Your task to perform on an android device: turn notification dots off Image 0: 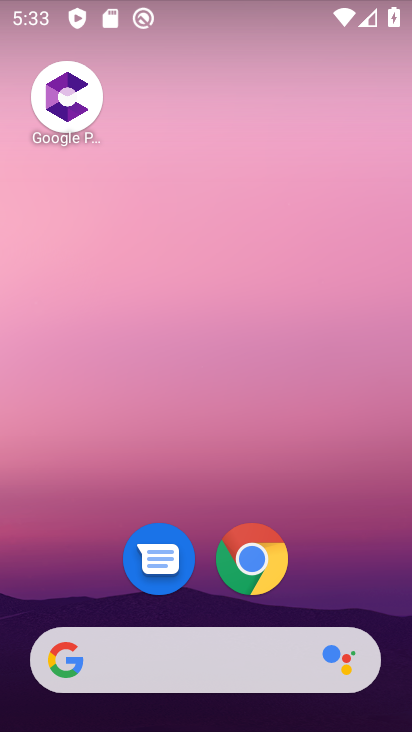
Step 0: drag from (362, 532) to (276, 26)
Your task to perform on an android device: turn notification dots off Image 1: 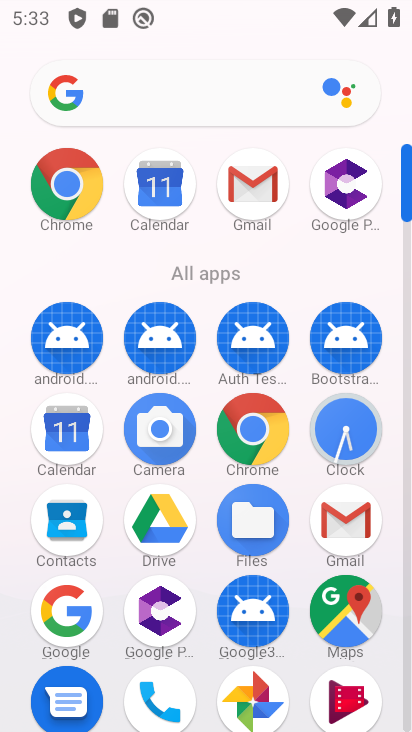
Step 1: click (404, 729)
Your task to perform on an android device: turn notification dots off Image 2: 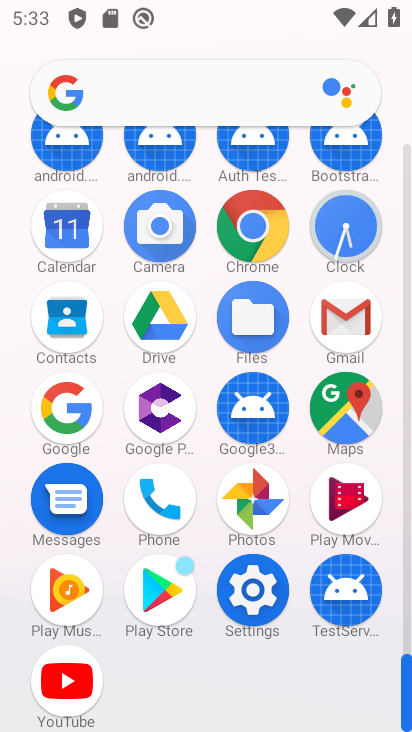
Step 2: click (245, 597)
Your task to perform on an android device: turn notification dots off Image 3: 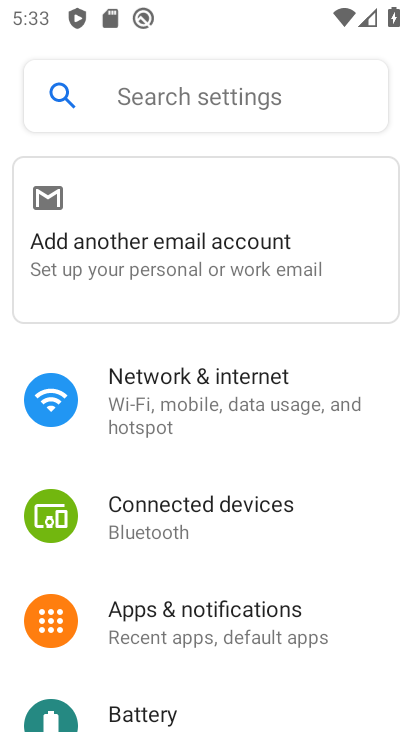
Step 3: click (279, 618)
Your task to perform on an android device: turn notification dots off Image 4: 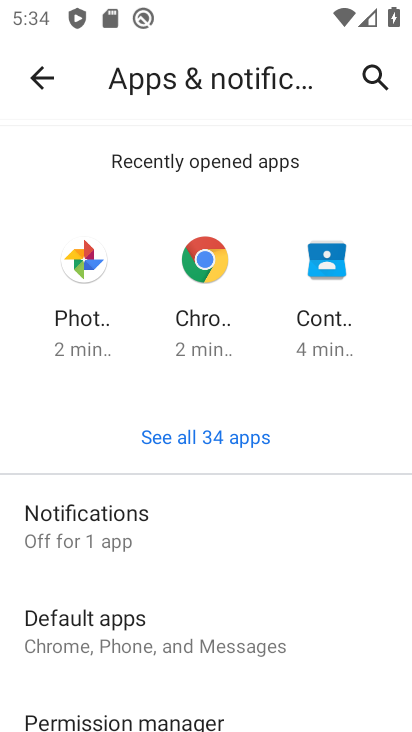
Step 4: click (148, 525)
Your task to perform on an android device: turn notification dots off Image 5: 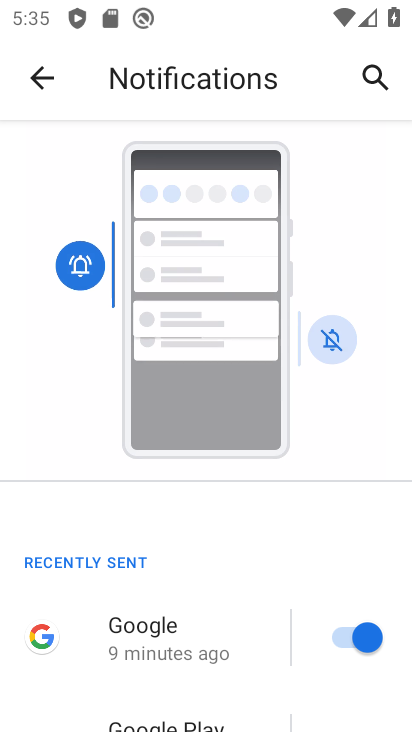
Step 5: drag from (192, 581) to (224, 291)
Your task to perform on an android device: turn notification dots off Image 6: 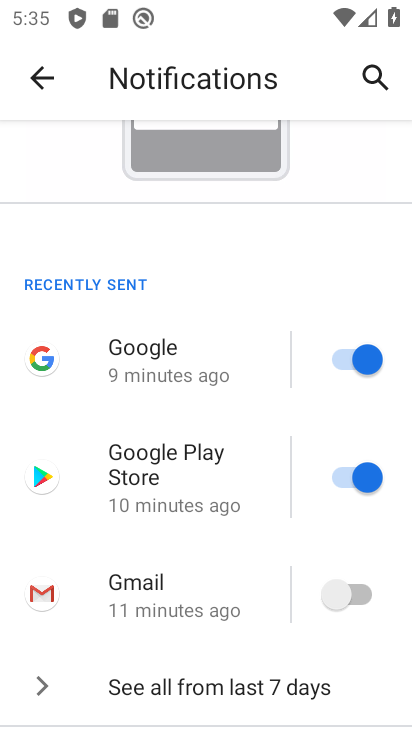
Step 6: drag from (286, 646) to (228, 351)
Your task to perform on an android device: turn notification dots off Image 7: 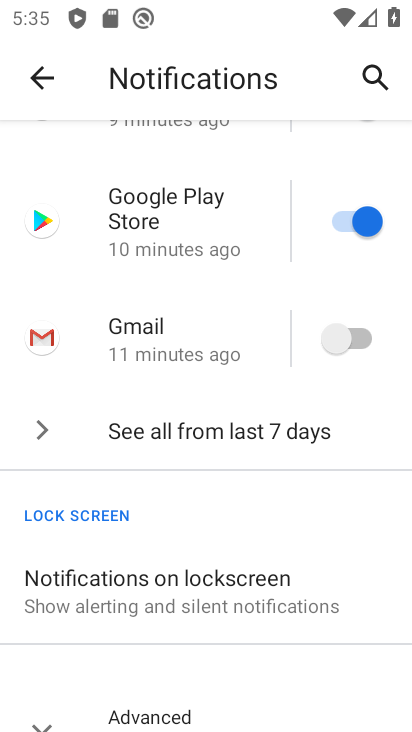
Step 7: drag from (137, 645) to (136, 386)
Your task to perform on an android device: turn notification dots off Image 8: 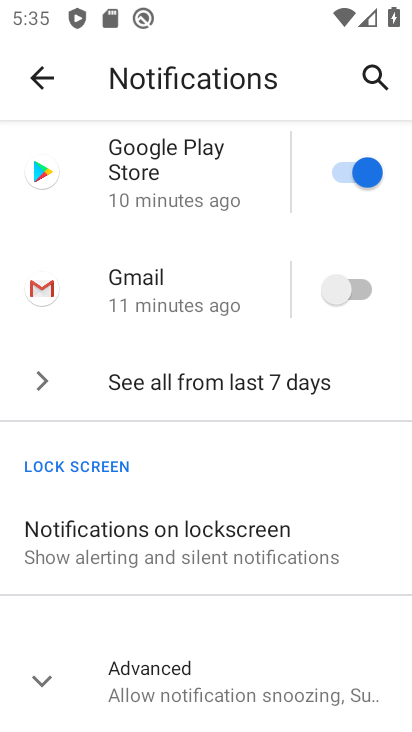
Step 8: click (255, 665)
Your task to perform on an android device: turn notification dots off Image 9: 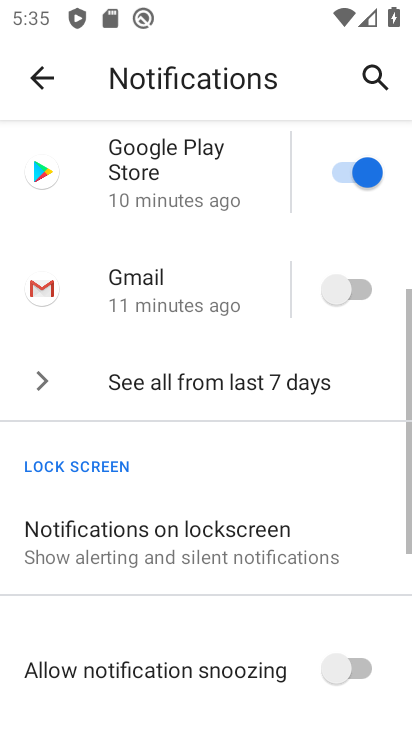
Step 9: drag from (255, 658) to (176, 267)
Your task to perform on an android device: turn notification dots off Image 10: 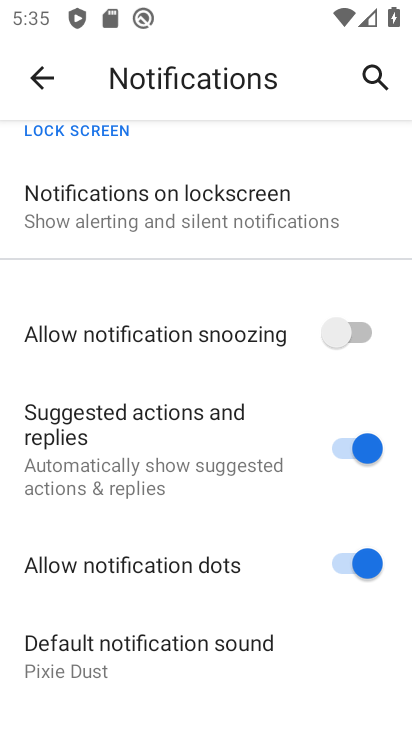
Step 10: click (283, 554)
Your task to perform on an android device: turn notification dots off Image 11: 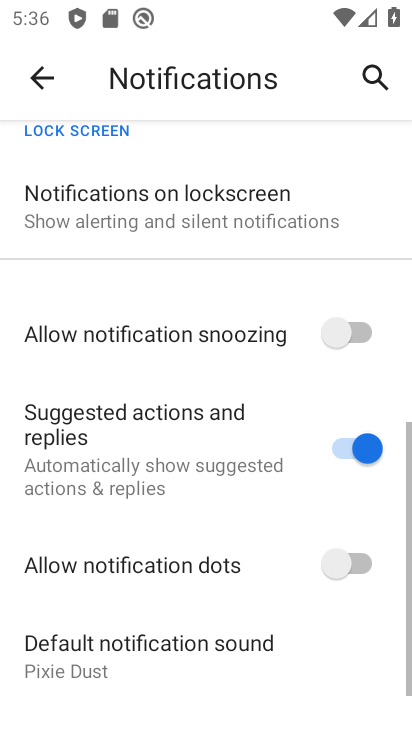
Step 11: task complete